Your task to perform on an android device: Go to battery settings Image 0: 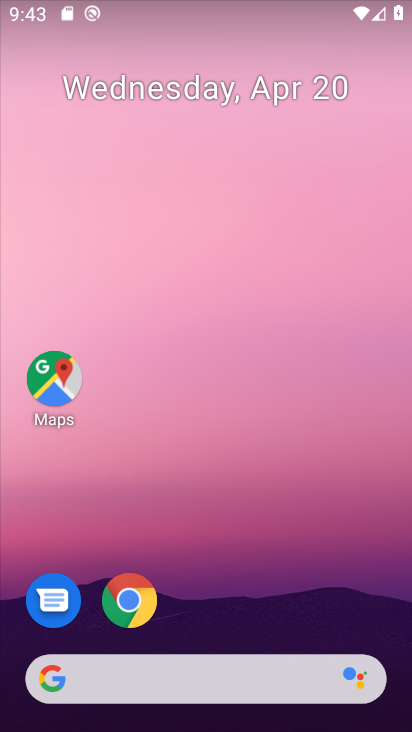
Step 0: drag from (248, 560) to (252, 135)
Your task to perform on an android device: Go to battery settings Image 1: 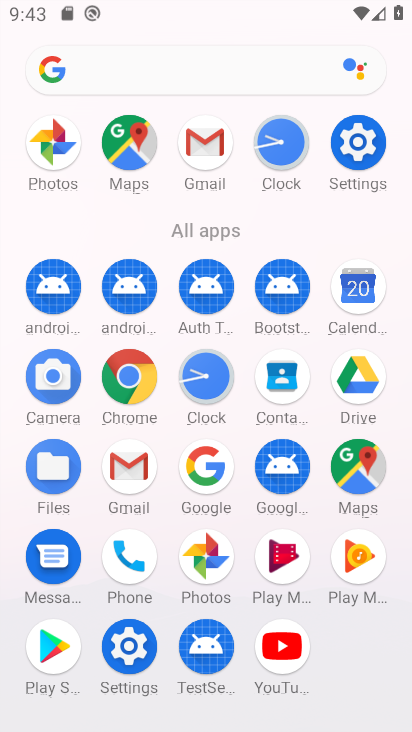
Step 1: click (361, 146)
Your task to perform on an android device: Go to battery settings Image 2: 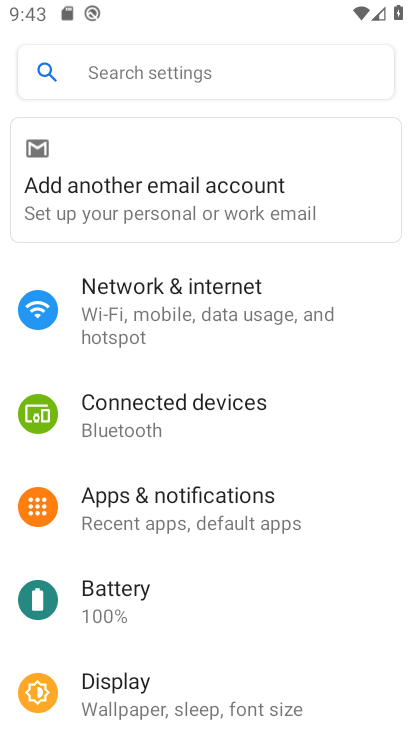
Step 2: click (106, 603)
Your task to perform on an android device: Go to battery settings Image 3: 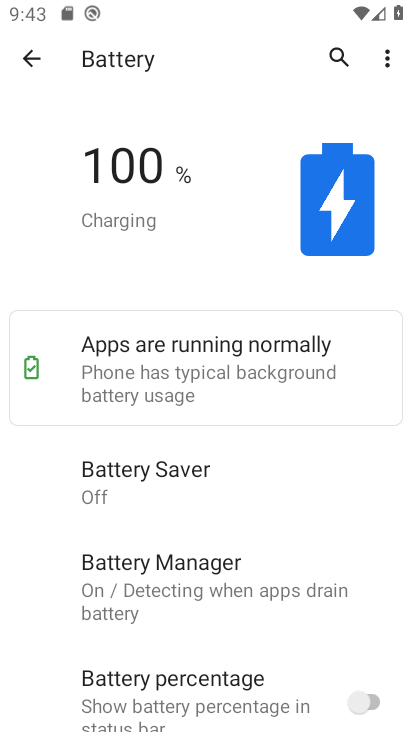
Step 3: task complete